Your task to perform on an android device: Open calendar and show me the second week of next month Image 0: 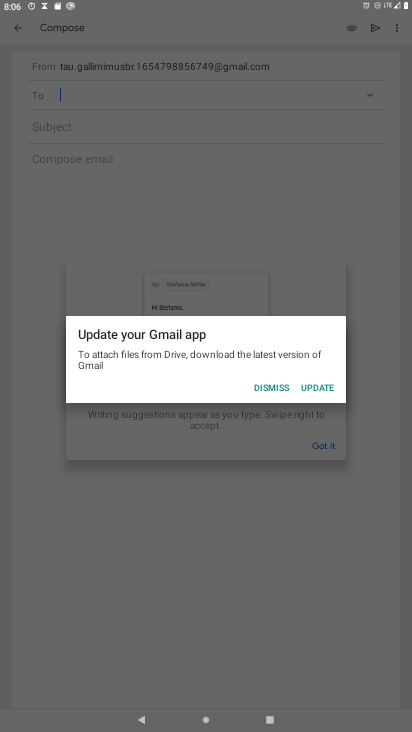
Step 0: press home button
Your task to perform on an android device: Open calendar and show me the second week of next month Image 1: 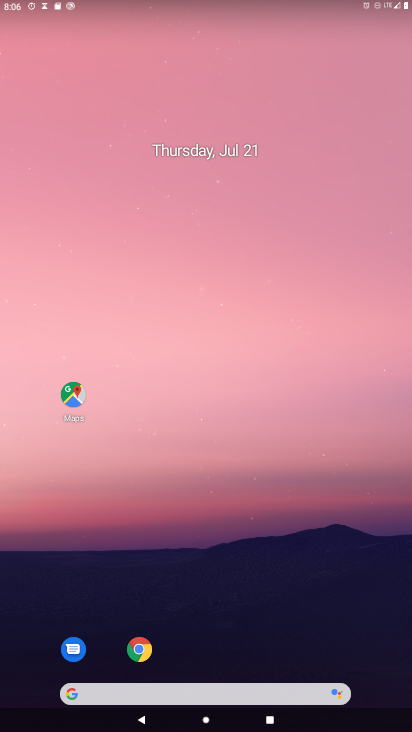
Step 1: drag from (302, 564) to (112, 94)
Your task to perform on an android device: Open calendar and show me the second week of next month Image 2: 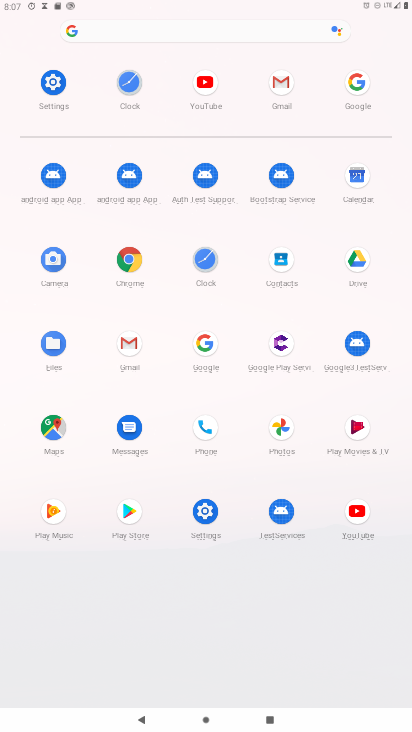
Step 2: click (357, 178)
Your task to perform on an android device: Open calendar and show me the second week of next month Image 3: 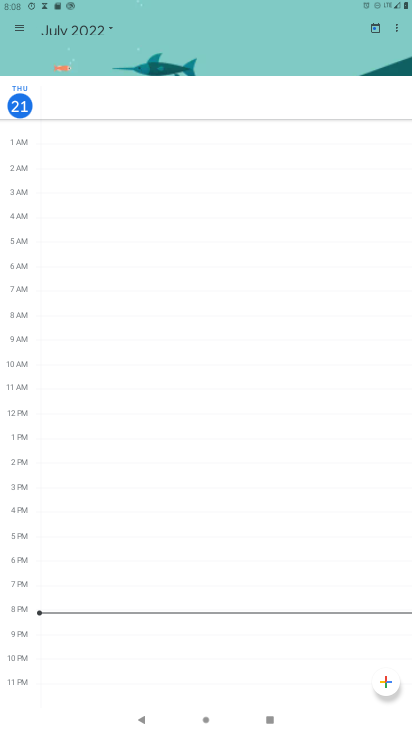
Step 3: click (65, 28)
Your task to perform on an android device: Open calendar and show me the second week of next month Image 4: 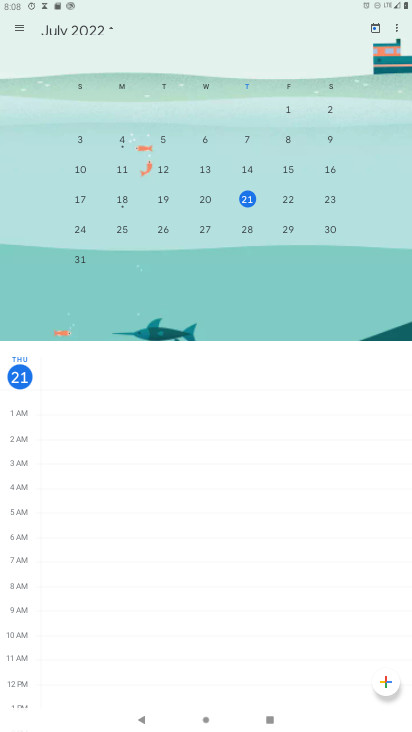
Step 4: drag from (316, 174) to (64, 195)
Your task to perform on an android device: Open calendar and show me the second week of next month Image 5: 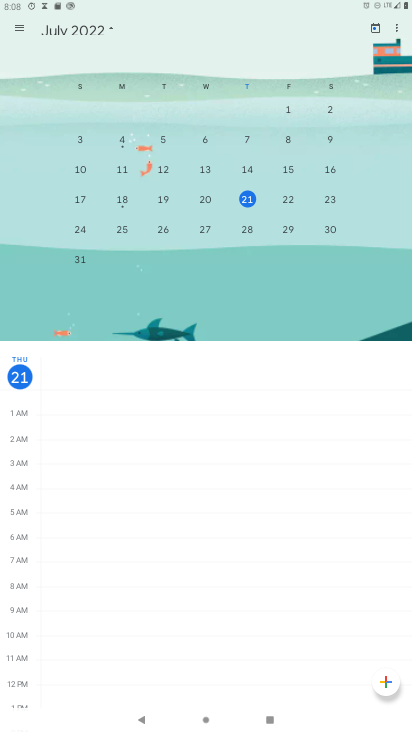
Step 5: drag from (305, 177) to (9, 170)
Your task to perform on an android device: Open calendar and show me the second week of next month Image 6: 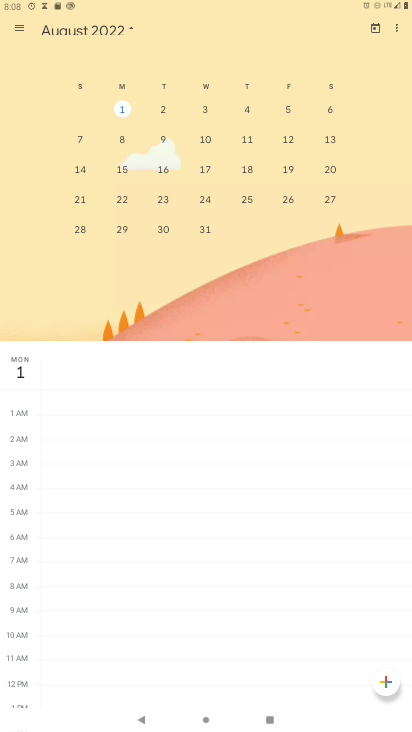
Step 6: click (79, 172)
Your task to perform on an android device: Open calendar and show me the second week of next month Image 7: 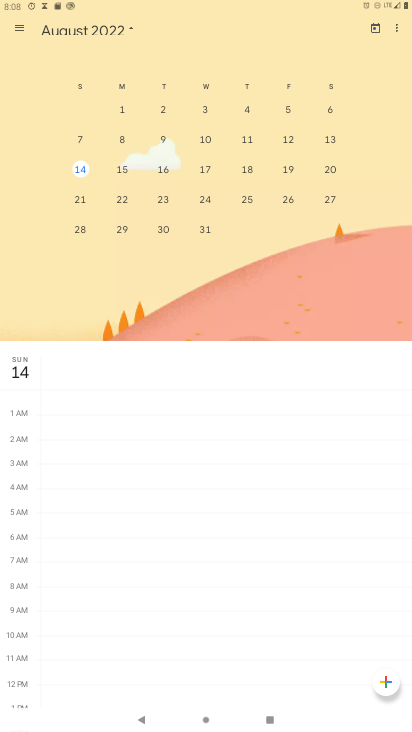
Step 7: task complete